Your task to perform on an android device: change the clock display to show seconds Image 0: 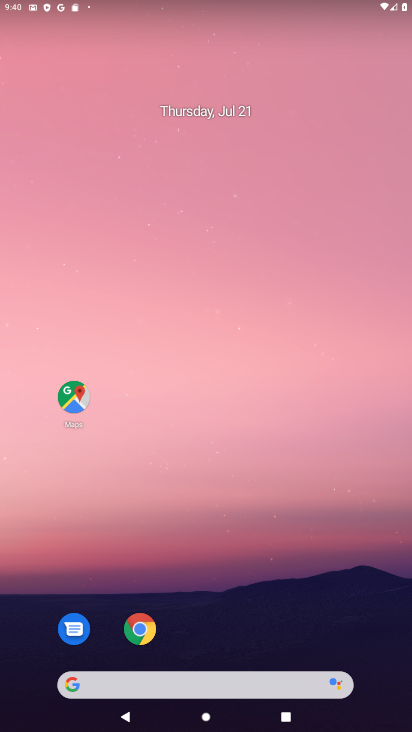
Step 0: drag from (235, 633) to (179, 80)
Your task to perform on an android device: change the clock display to show seconds Image 1: 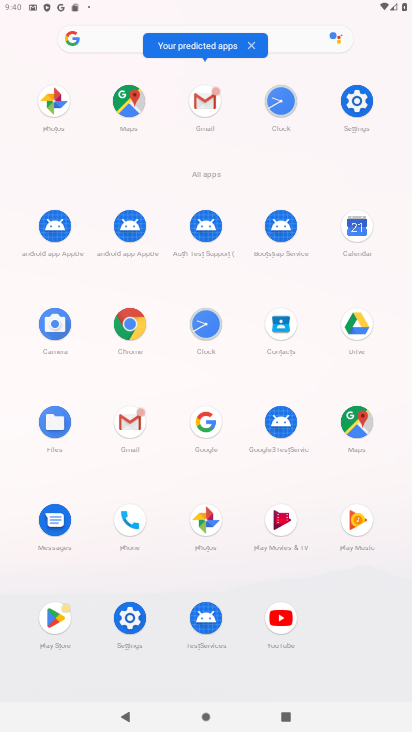
Step 1: click (282, 96)
Your task to perform on an android device: change the clock display to show seconds Image 2: 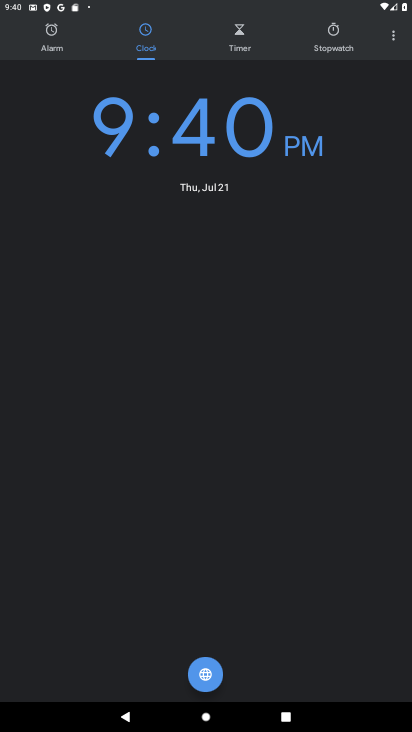
Step 2: click (391, 44)
Your task to perform on an android device: change the clock display to show seconds Image 3: 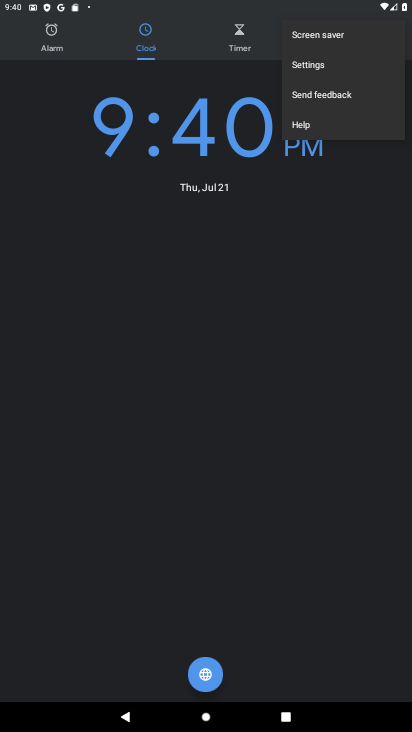
Step 3: click (347, 68)
Your task to perform on an android device: change the clock display to show seconds Image 4: 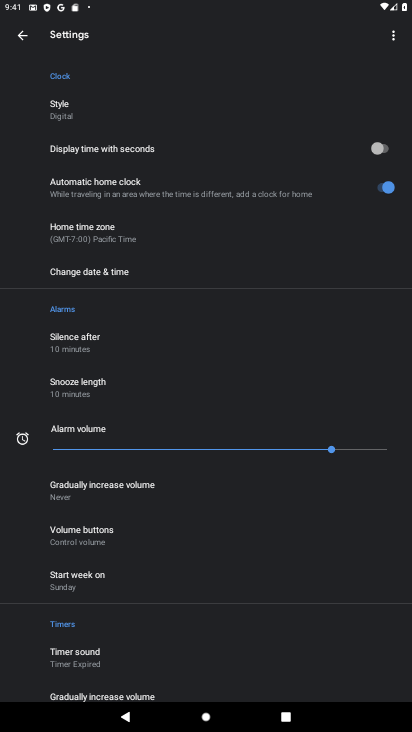
Step 4: click (385, 152)
Your task to perform on an android device: change the clock display to show seconds Image 5: 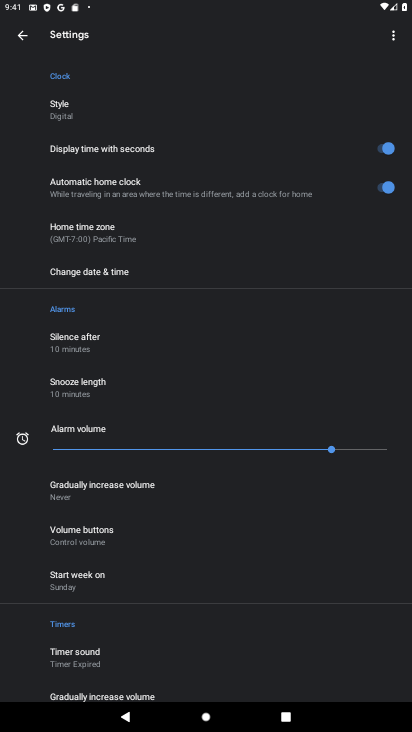
Step 5: task complete